Your task to perform on an android device: Open sound settings Image 0: 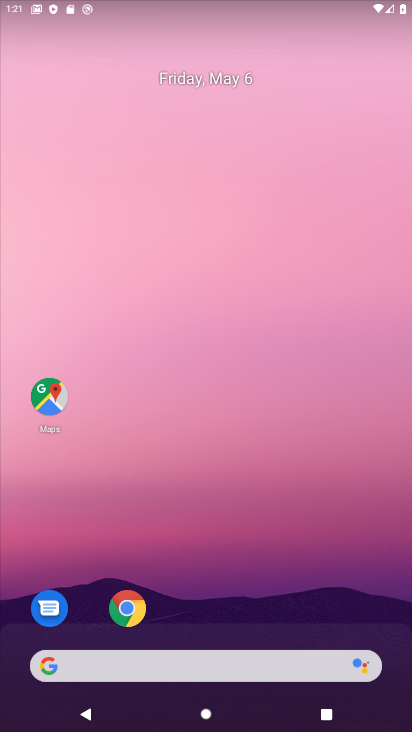
Step 0: drag from (195, 613) to (231, 163)
Your task to perform on an android device: Open sound settings Image 1: 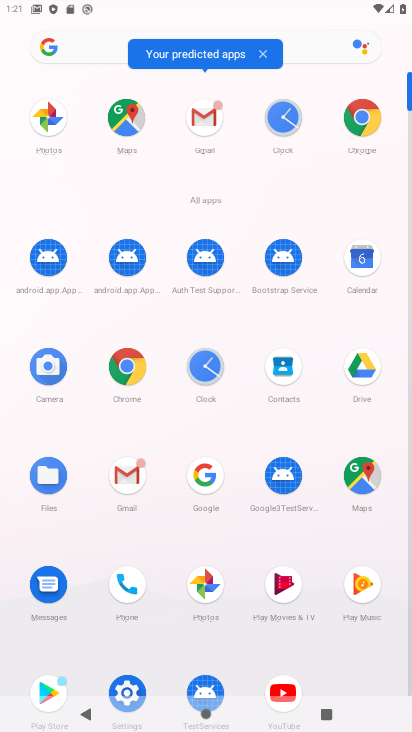
Step 1: click (124, 684)
Your task to perform on an android device: Open sound settings Image 2: 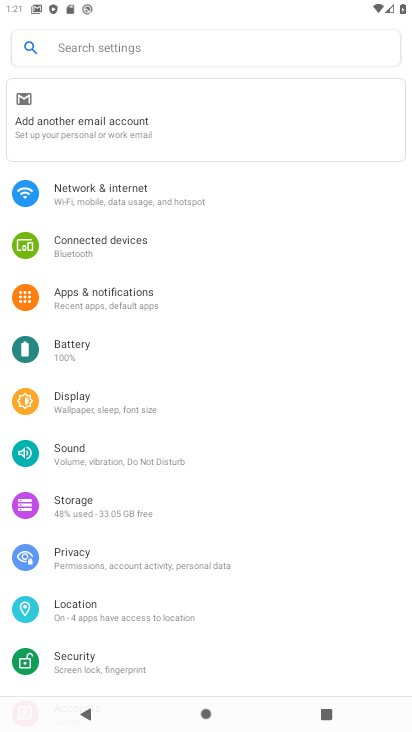
Step 2: click (90, 458)
Your task to perform on an android device: Open sound settings Image 3: 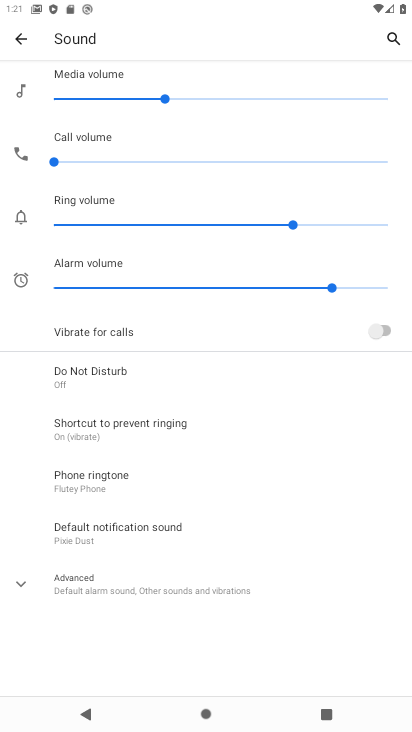
Step 3: task complete